Your task to perform on an android device: Open settings on Google Maps Image 0: 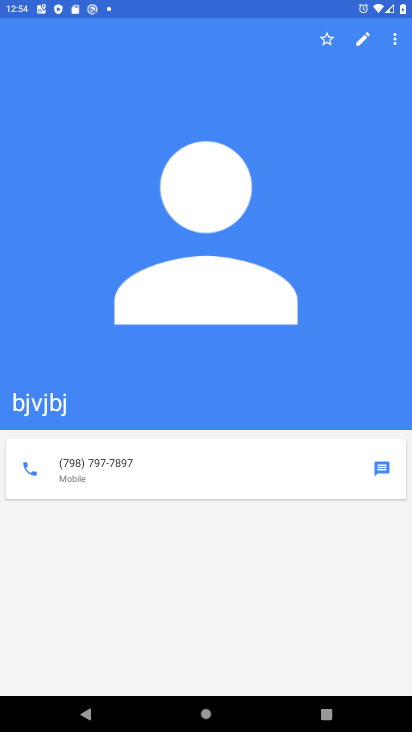
Step 0: press home button
Your task to perform on an android device: Open settings on Google Maps Image 1: 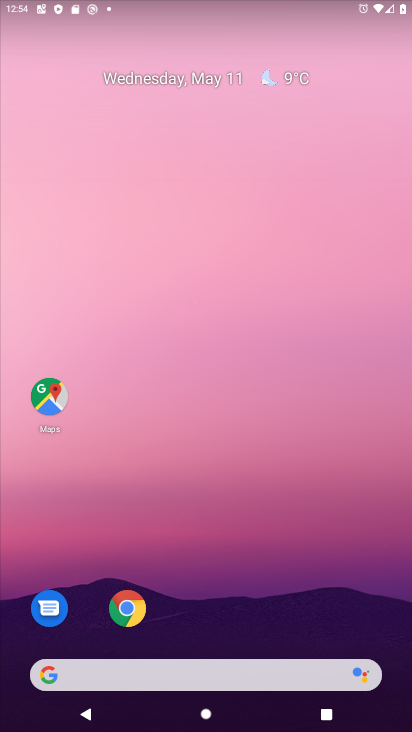
Step 1: drag from (281, 579) to (243, 180)
Your task to perform on an android device: Open settings on Google Maps Image 2: 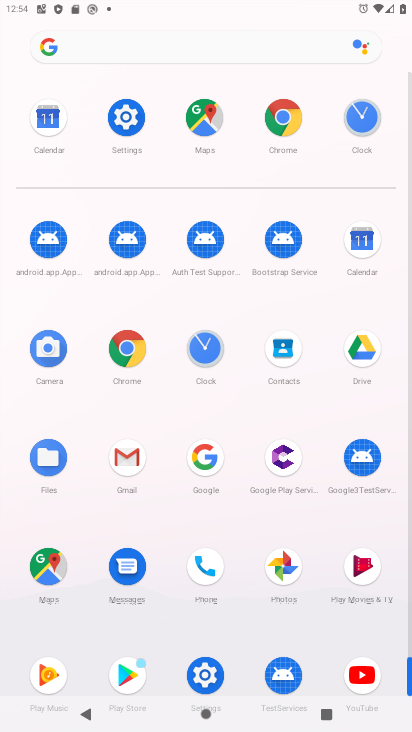
Step 2: click (45, 579)
Your task to perform on an android device: Open settings on Google Maps Image 3: 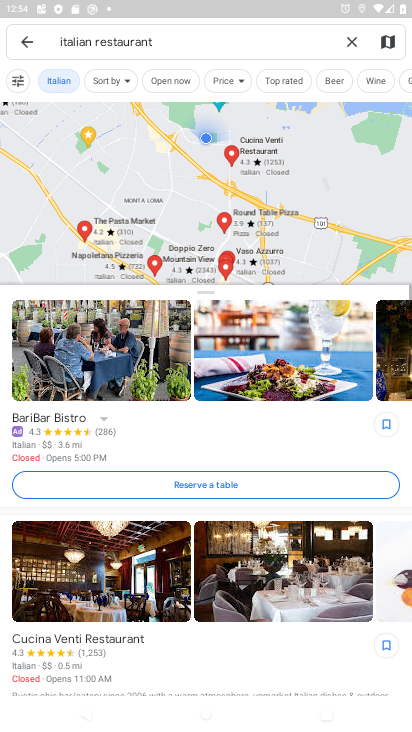
Step 3: click (30, 44)
Your task to perform on an android device: Open settings on Google Maps Image 4: 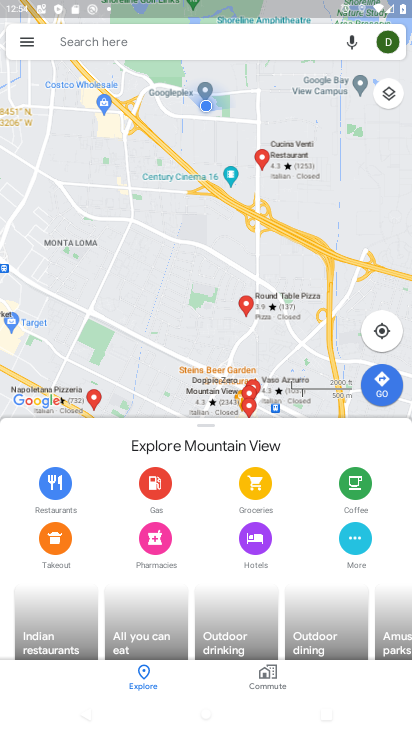
Step 4: click (30, 44)
Your task to perform on an android device: Open settings on Google Maps Image 5: 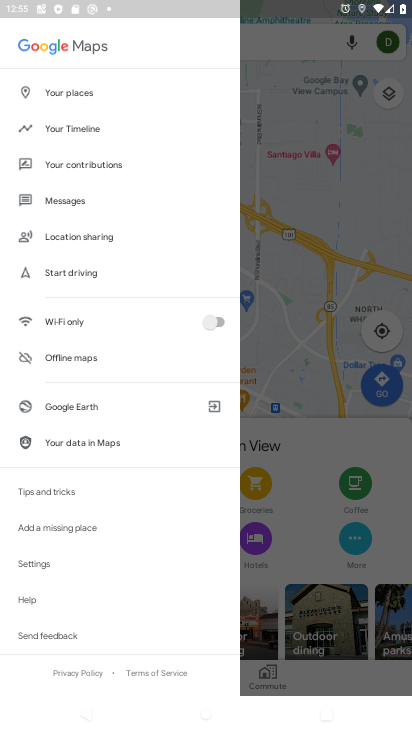
Step 5: click (107, 553)
Your task to perform on an android device: Open settings on Google Maps Image 6: 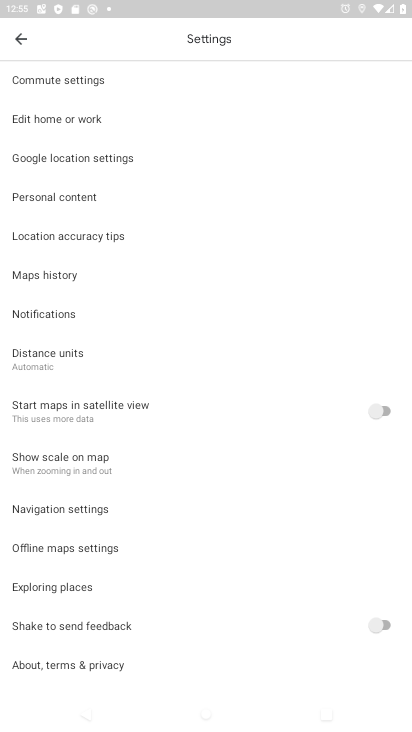
Step 6: task complete